Your task to perform on an android device: turn off javascript in the chrome app Image 0: 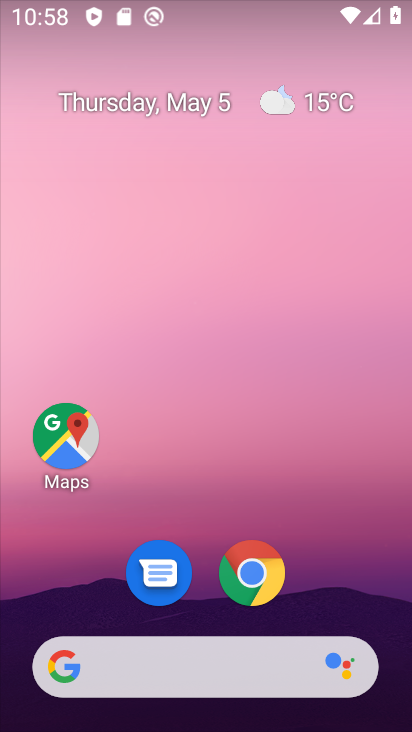
Step 0: click (265, 590)
Your task to perform on an android device: turn off javascript in the chrome app Image 1: 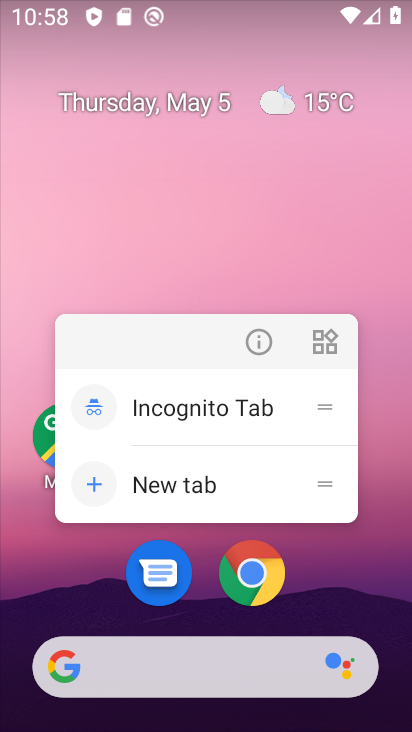
Step 1: click (238, 570)
Your task to perform on an android device: turn off javascript in the chrome app Image 2: 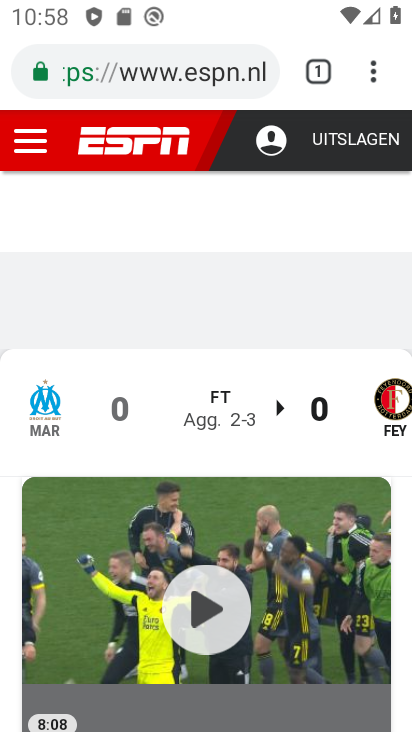
Step 2: drag from (372, 86) to (314, 564)
Your task to perform on an android device: turn off javascript in the chrome app Image 3: 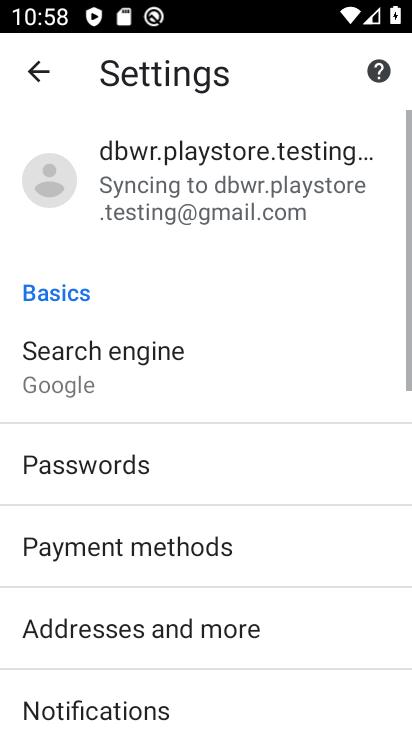
Step 3: drag from (217, 627) to (298, 275)
Your task to perform on an android device: turn off javascript in the chrome app Image 4: 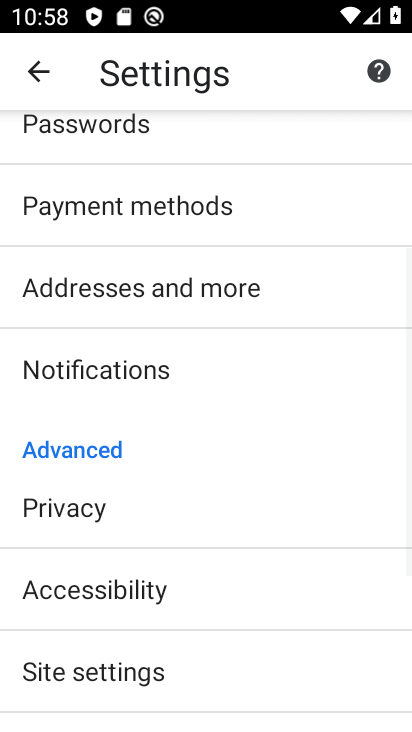
Step 4: drag from (173, 637) to (267, 302)
Your task to perform on an android device: turn off javascript in the chrome app Image 5: 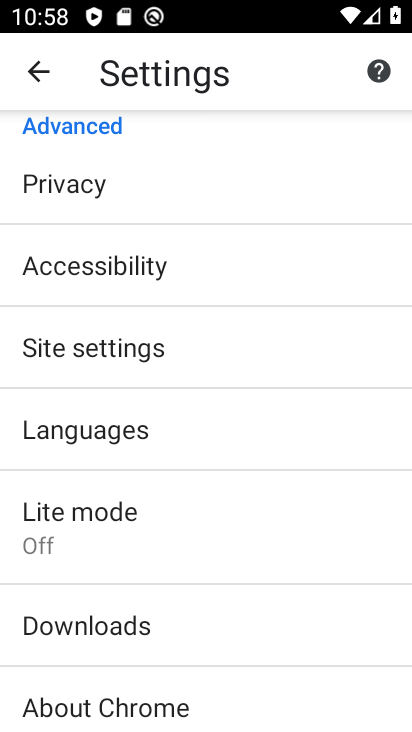
Step 5: click (167, 340)
Your task to perform on an android device: turn off javascript in the chrome app Image 6: 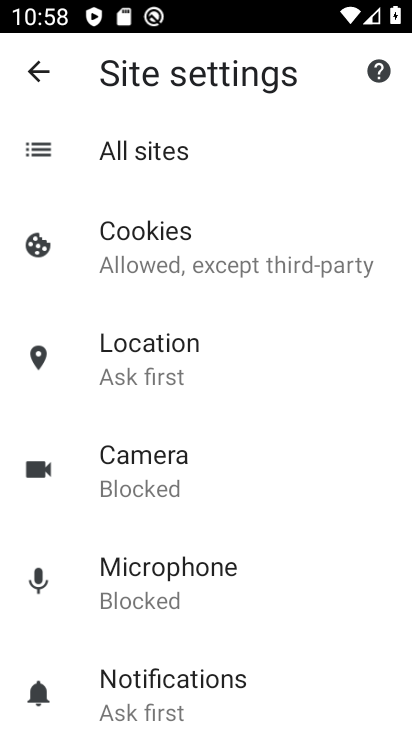
Step 6: drag from (99, 574) to (236, 235)
Your task to perform on an android device: turn off javascript in the chrome app Image 7: 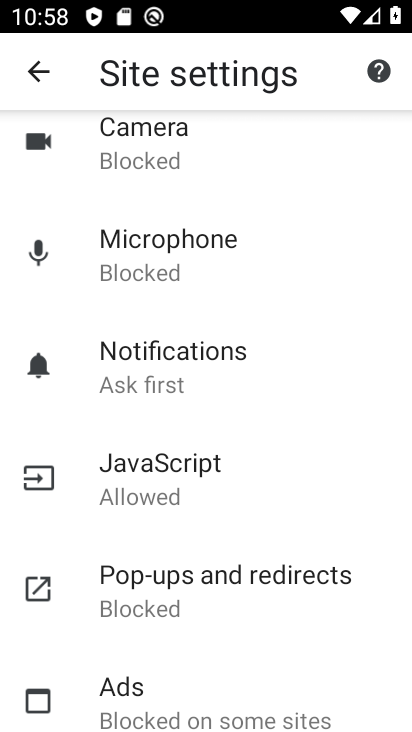
Step 7: click (218, 490)
Your task to perform on an android device: turn off javascript in the chrome app Image 8: 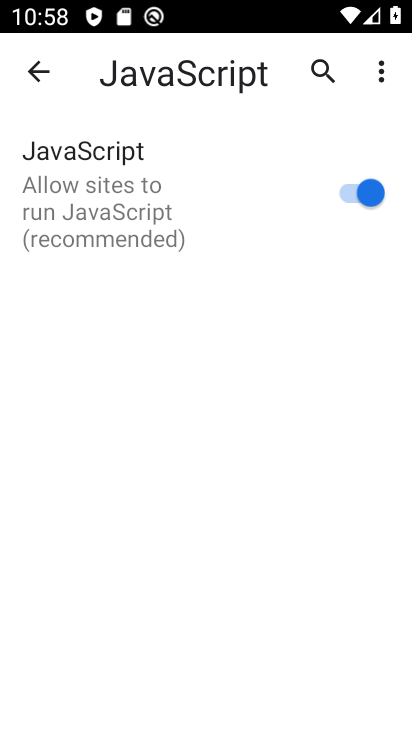
Step 8: click (353, 191)
Your task to perform on an android device: turn off javascript in the chrome app Image 9: 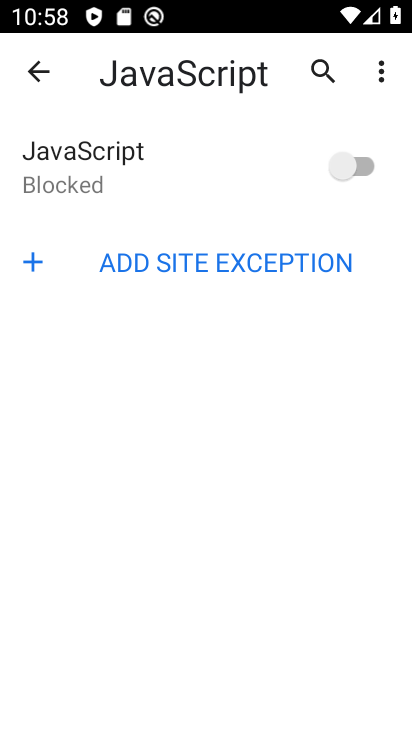
Step 9: task complete